Your task to perform on an android device: Go to eBay Image 0: 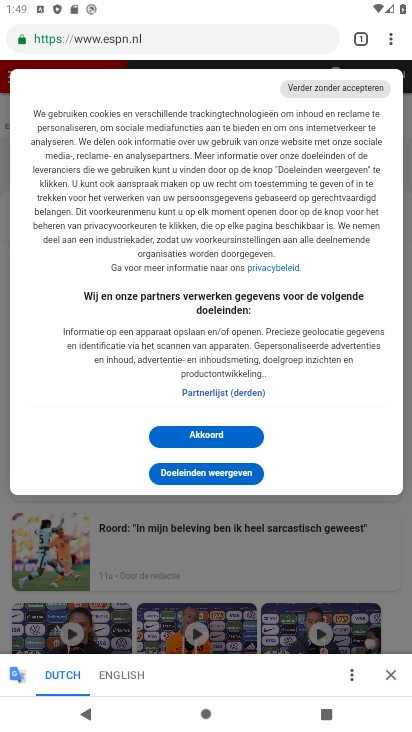
Step 0: drag from (242, 634) to (239, 323)
Your task to perform on an android device: Go to eBay Image 1: 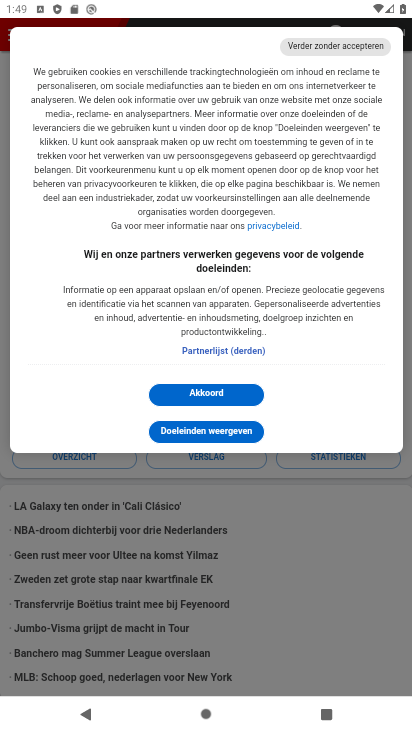
Step 1: press back button
Your task to perform on an android device: Go to eBay Image 2: 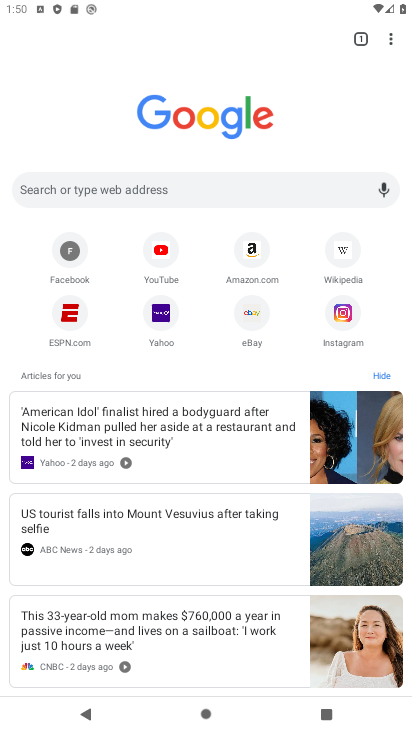
Step 2: click (255, 307)
Your task to perform on an android device: Go to eBay Image 3: 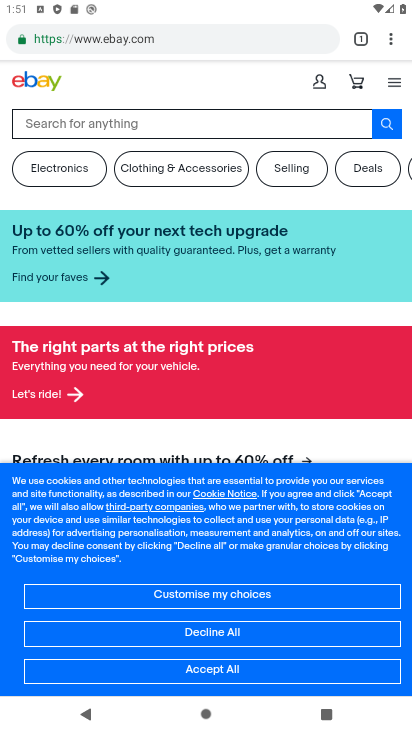
Step 3: click (253, 297)
Your task to perform on an android device: Go to eBay Image 4: 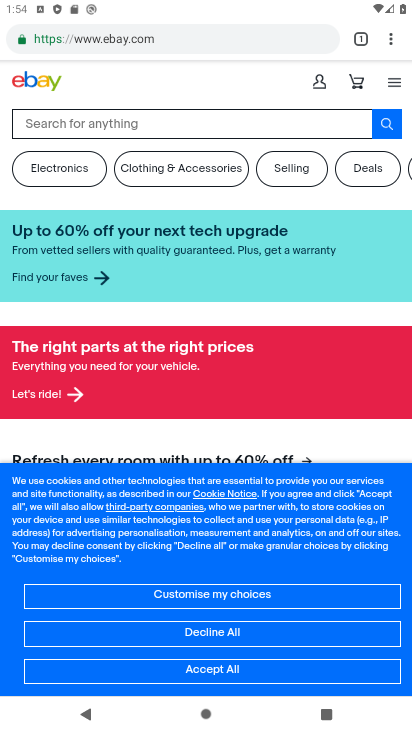
Step 4: task complete